Your task to perform on an android device: Go to settings Image 0: 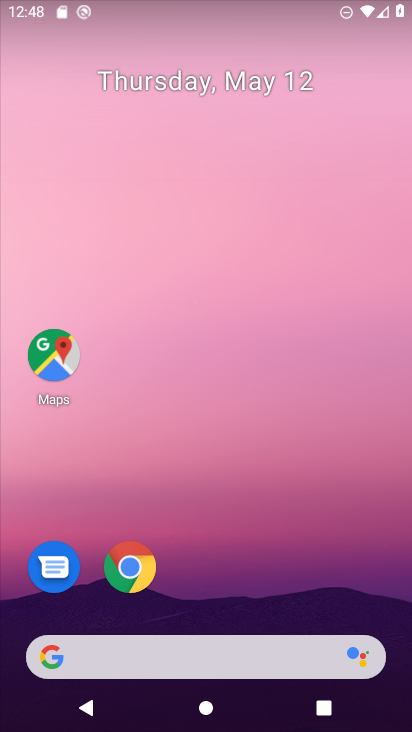
Step 0: drag from (264, 714) to (228, 3)
Your task to perform on an android device: Go to settings Image 1: 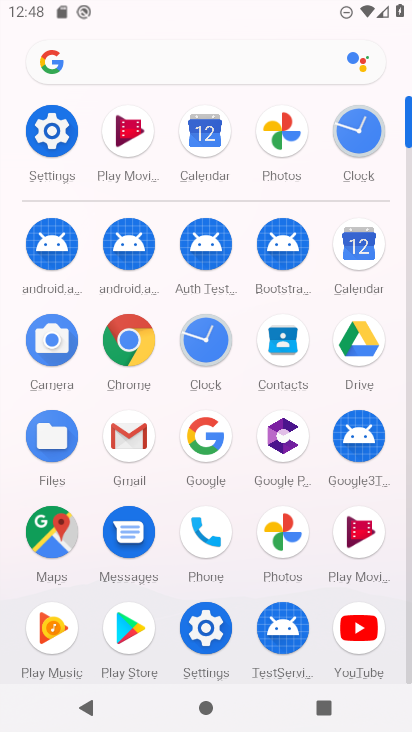
Step 1: click (46, 143)
Your task to perform on an android device: Go to settings Image 2: 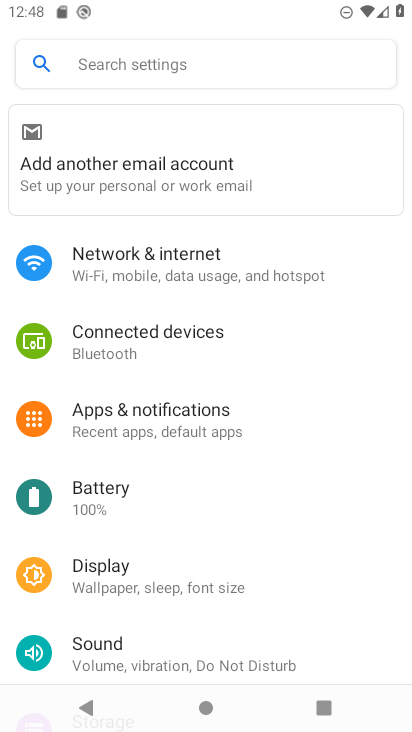
Step 2: task complete